Your task to perform on an android device: Go to ESPN.com Image 0: 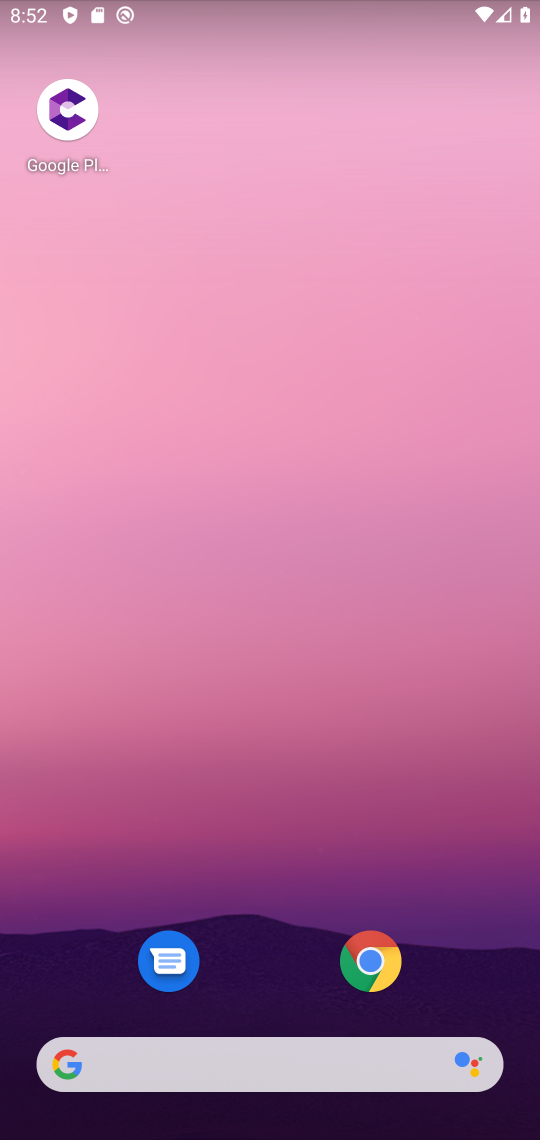
Step 0: drag from (258, 984) to (357, 40)
Your task to perform on an android device: Go to ESPN.com Image 1: 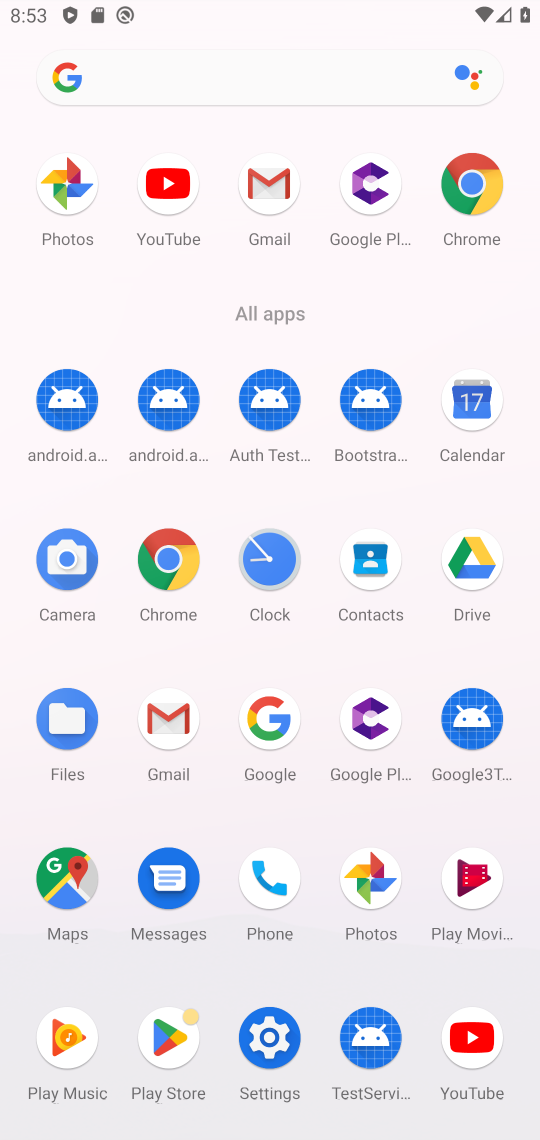
Step 1: click (167, 563)
Your task to perform on an android device: Go to ESPN.com Image 2: 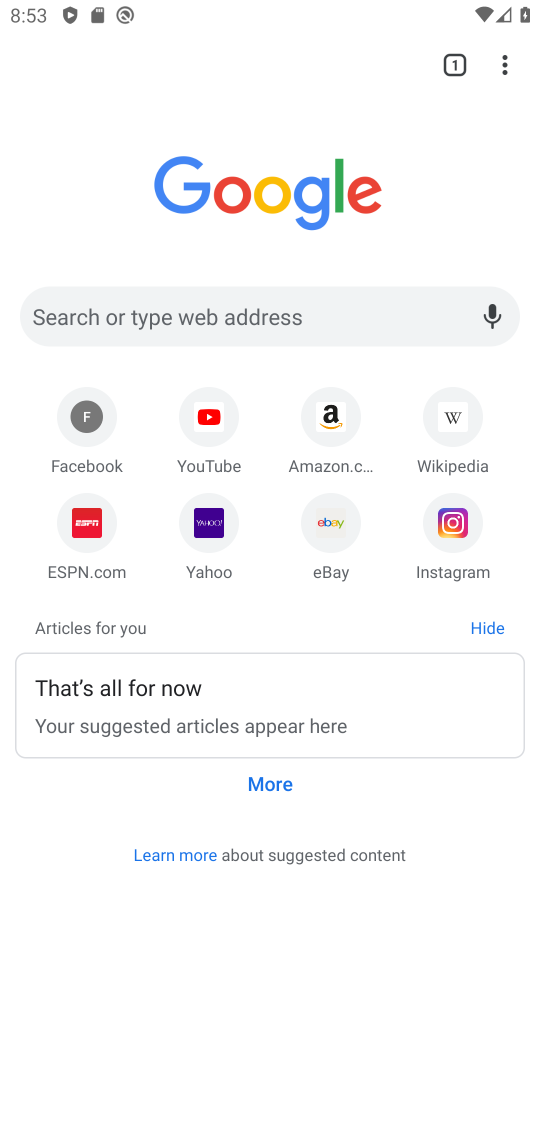
Step 2: click (92, 543)
Your task to perform on an android device: Go to ESPN.com Image 3: 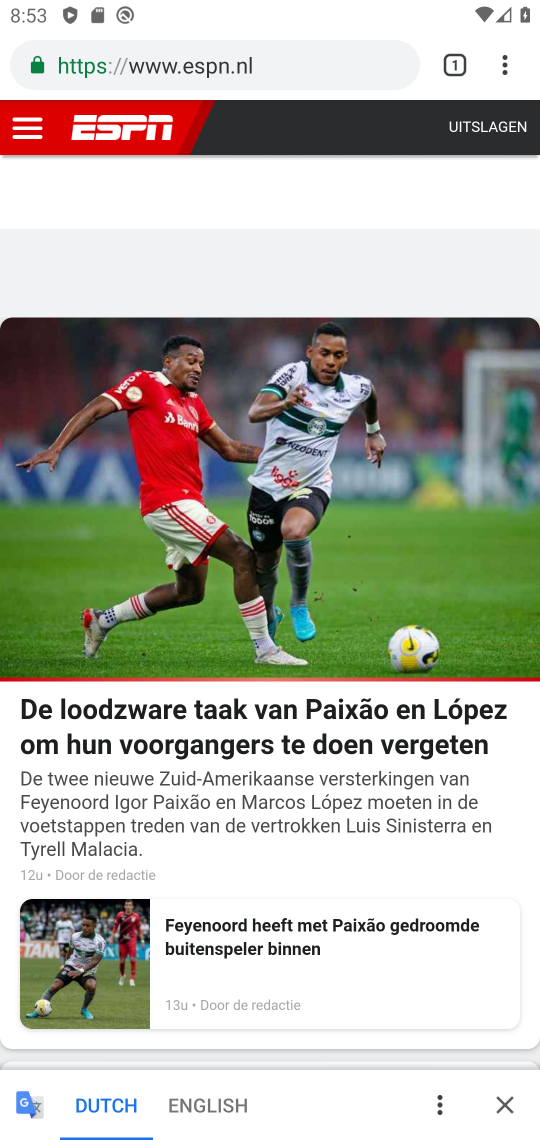
Step 3: task complete